Your task to perform on an android device: Find coffee shops on Maps Image 0: 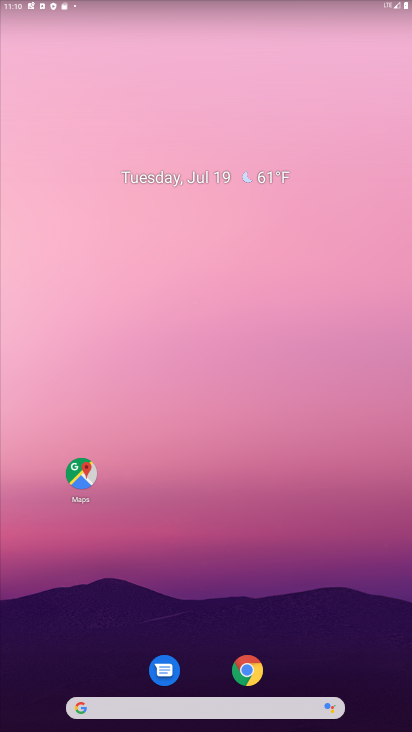
Step 0: click (76, 472)
Your task to perform on an android device: Find coffee shops on Maps Image 1: 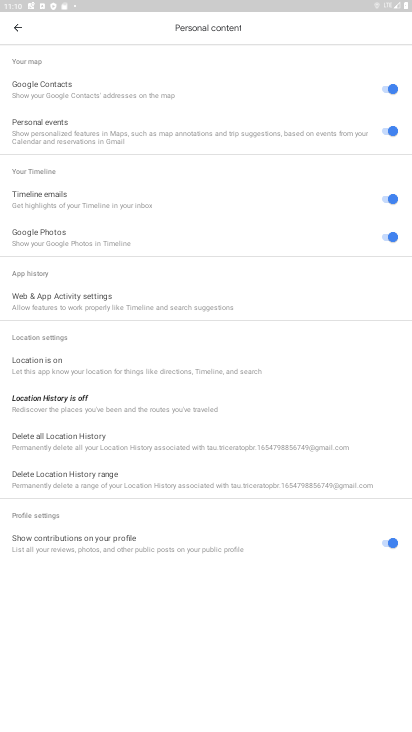
Step 1: click (18, 28)
Your task to perform on an android device: Find coffee shops on Maps Image 2: 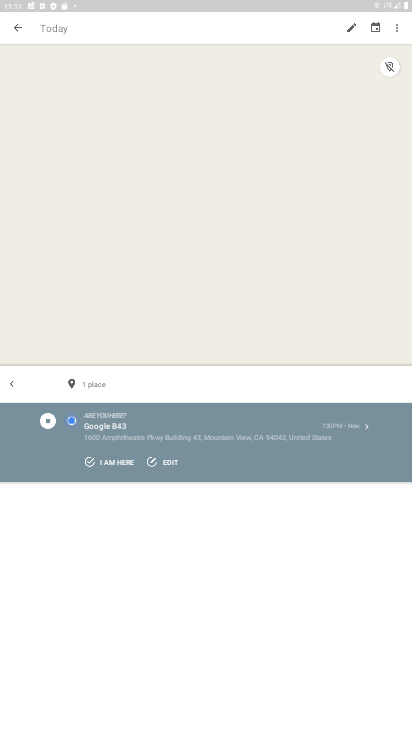
Step 2: click (18, 28)
Your task to perform on an android device: Find coffee shops on Maps Image 3: 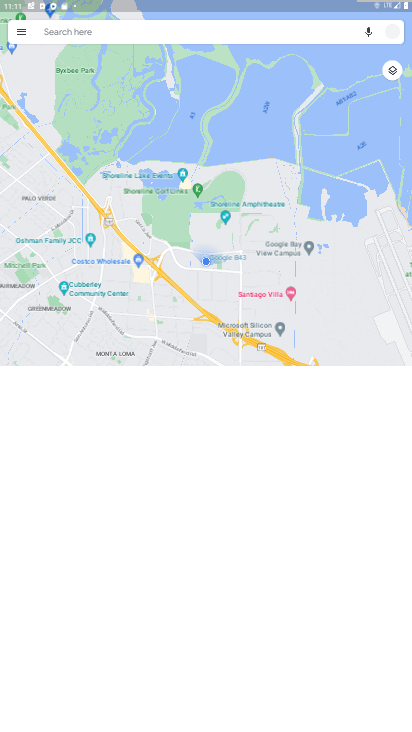
Step 3: click (95, 29)
Your task to perform on an android device: Find coffee shops on Maps Image 4: 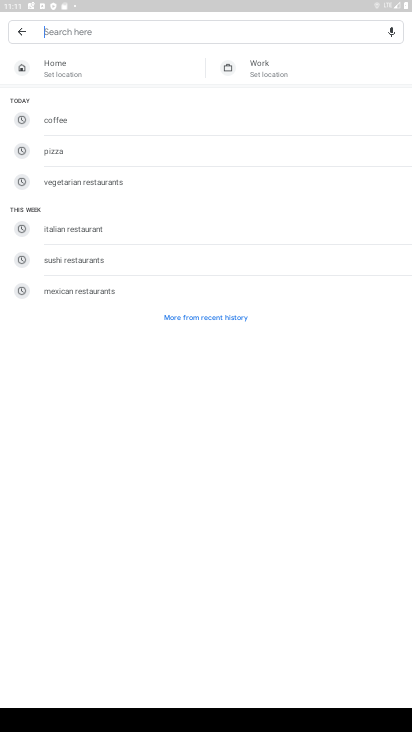
Step 4: type "coffee shop"
Your task to perform on an android device: Find coffee shops on Maps Image 5: 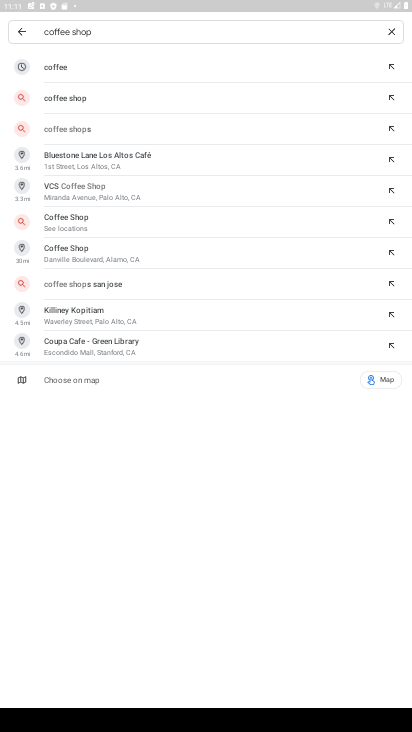
Step 5: click (113, 95)
Your task to perform on an android device: Find coffee shops on Maps Image 6: 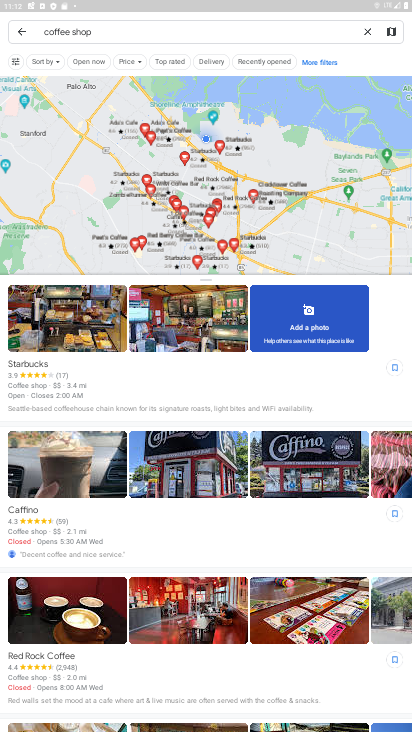
Step 6: task complete